Your task to perform on an android device: toggle improve location accuracy Image 0: 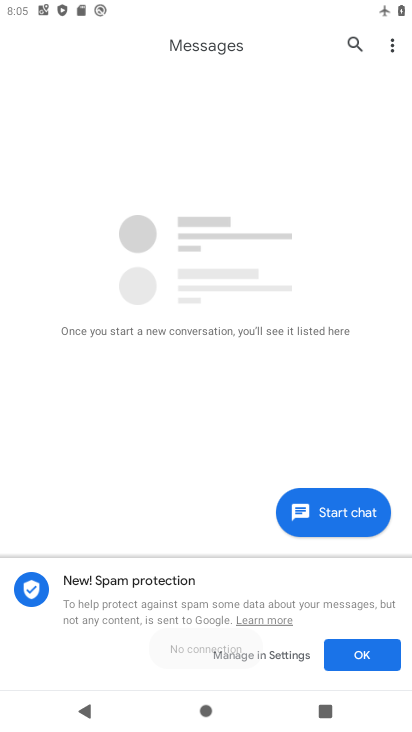
Step 0: drag from (291, 577) to (229, 140)
Your task to perform on an android device: toggle improve location accuracy Image 1: 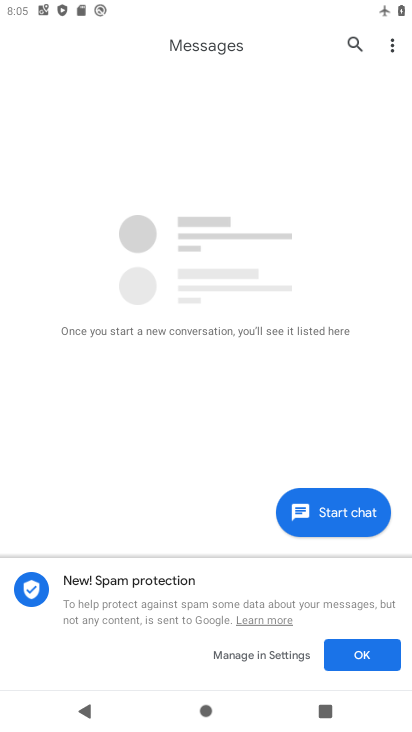
Step 1: press home button
Your task to perform on an android device: toggle improve location accuracy Image 2: 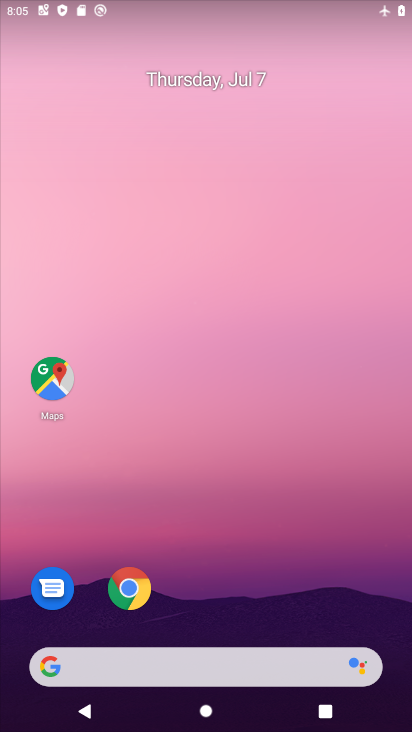
Step 2: drag from (245, 586) to (200, 148)
Your task to perform on an android device: toggle improve location accuracy Image 3: 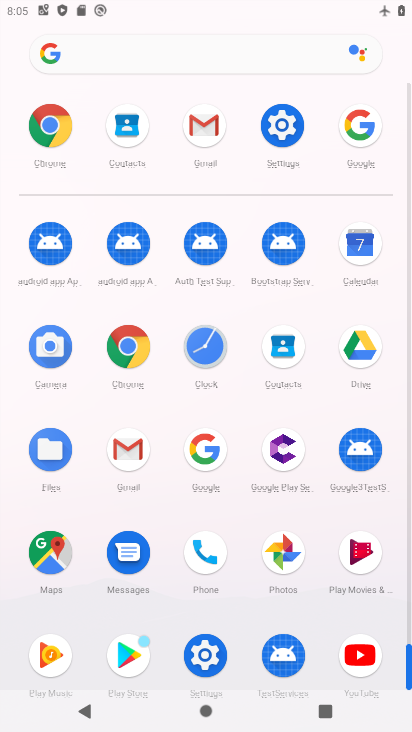
Step 3: click (287, 114)
Your task to perform on an android device: toggle improve location accuracy Image 4: 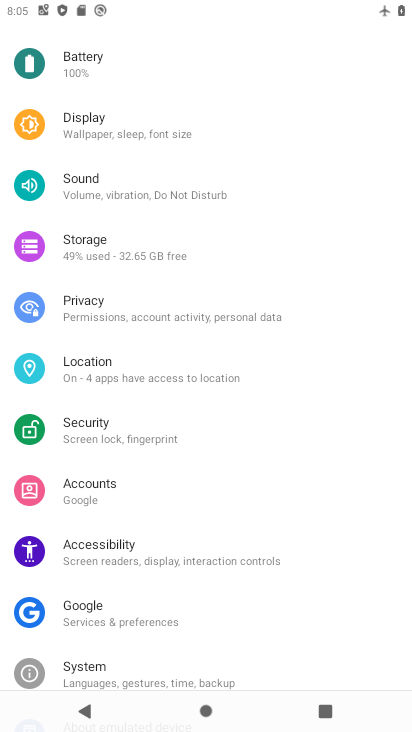
Step 4: click (115, 365)
Your task to perform on an android device: toggle improve location accuracy Image 5: 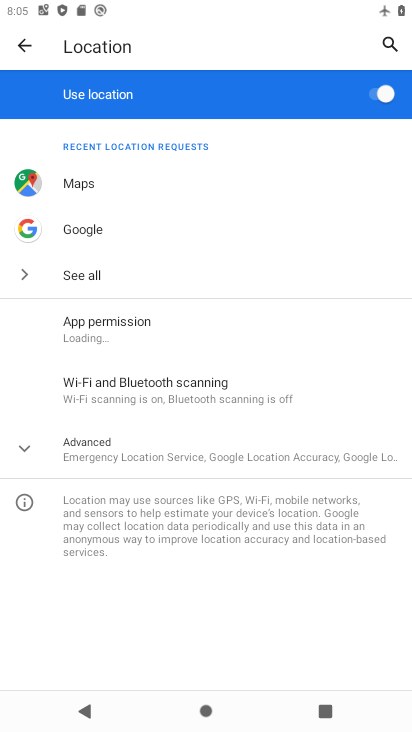
Step 5: click (116, 458)
Your task to perform on an android device: toggle improve location accuracy Image 6: 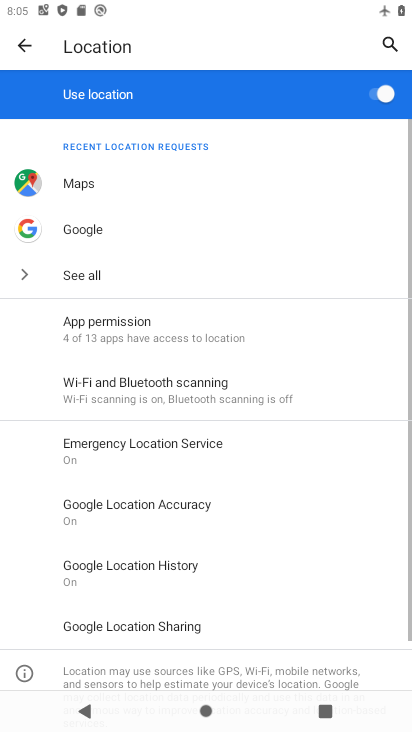
Step 6: click (169, 505)
Your task to perform on an android device: toggle improve location accuracy Image 7: 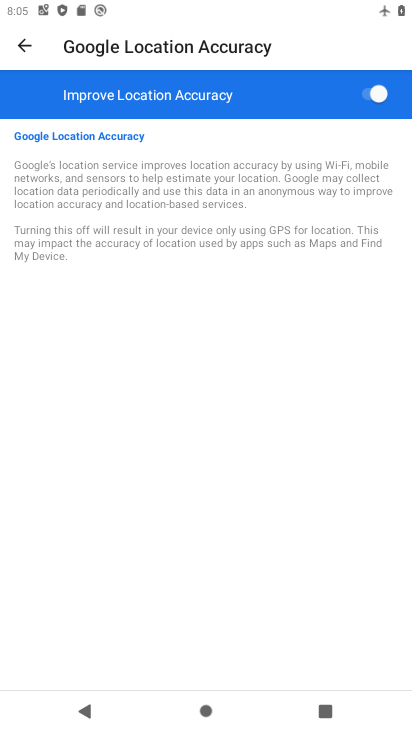
Step 7: click (383, 105)
Your task to perform on an android device: toggle improve location accuracy Image 8: 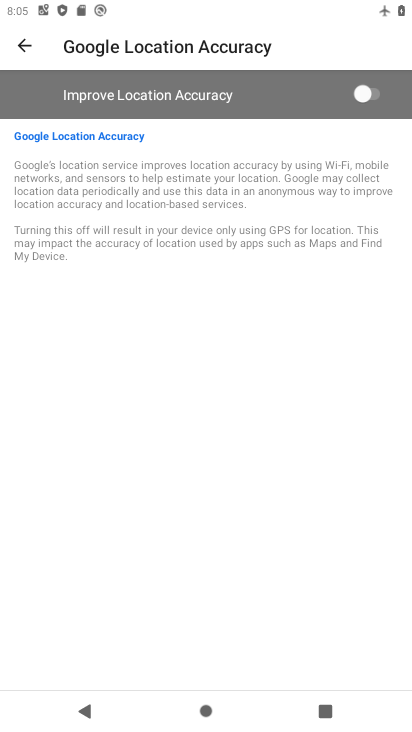
Step 8: task complete